Your task to perform on an android device: check android version Image 0: 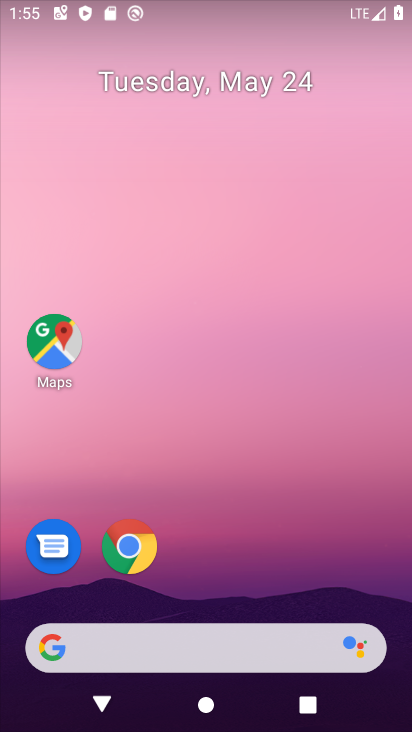
Step 0: drag from (217, 596) to (211, 59)
Your task to perform on an android device: check android version Image 1: 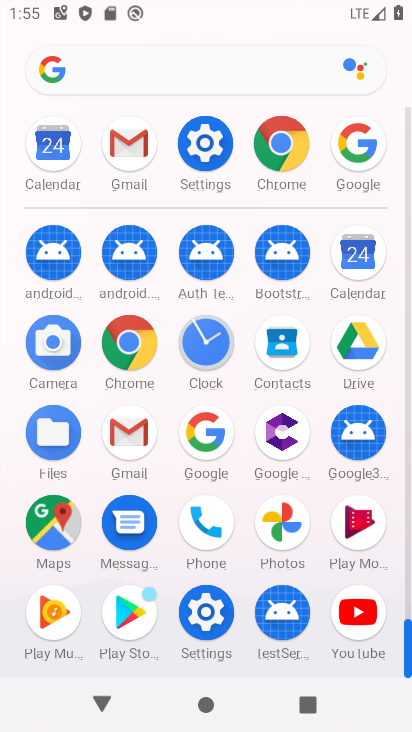
Step 1: click (187, 153)
Your task to perform on an android device: check android version Image 2: 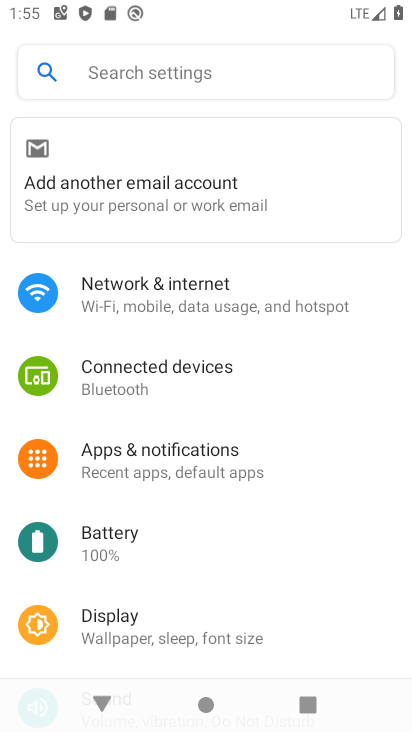
Step 2: drag from (170, 627) to (206, 2)
Your task to perform on an android device: check android version Image 3: 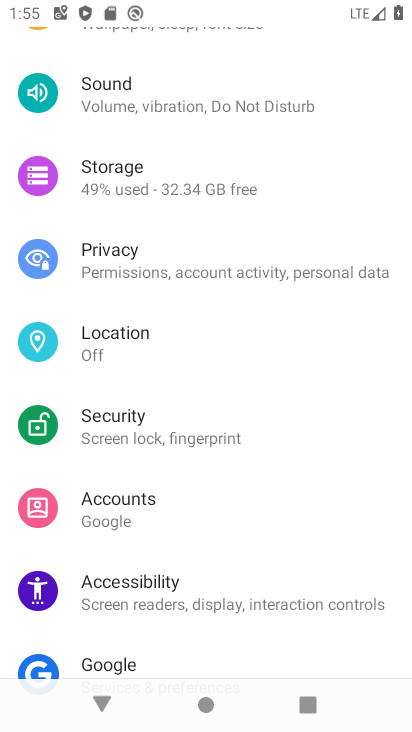
Step 3: drag from (209, 629) to (237, 1)
Your task to perform on an android device: check android version Image 4: 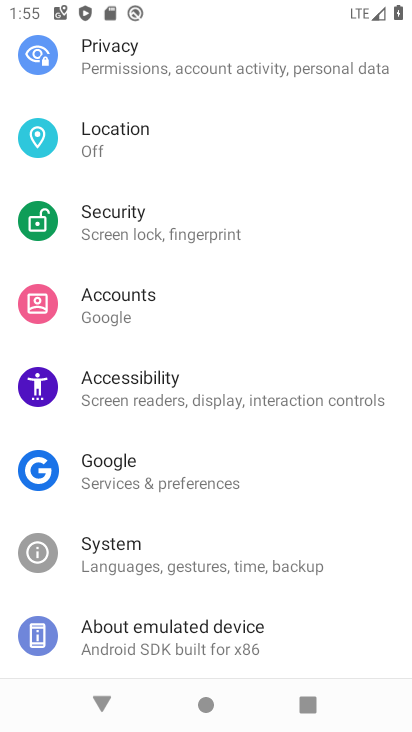
Step 4: click (180, 637)
Your task to perform on an android device: check android version Image 5: 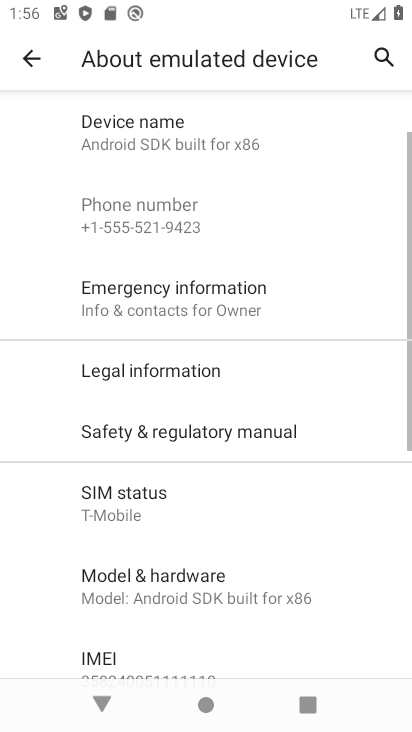
Step 5: drag from (102, 654) to (235, 0)
Your task to perform on an android device: check android version Image 6: 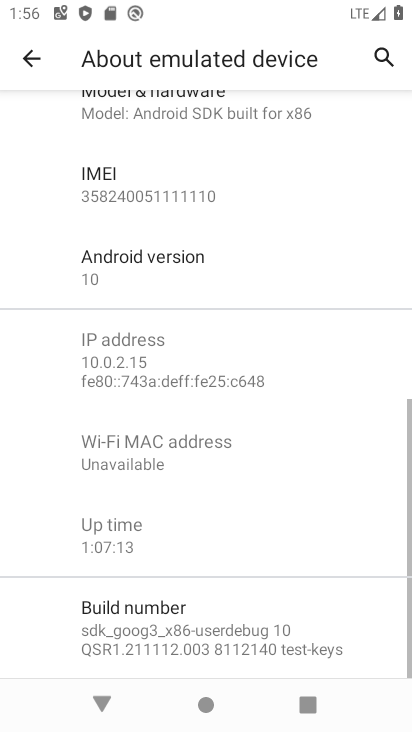
Step 6: click (182, 253)
Your task to perform on an android device: check android version Image 7: 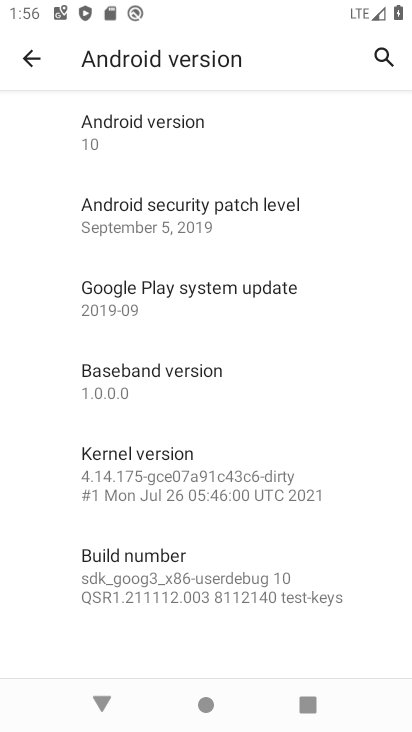
Step 7: task complete